Your task to perform on an android device: What's on my calendar tomorrow? Image 0: 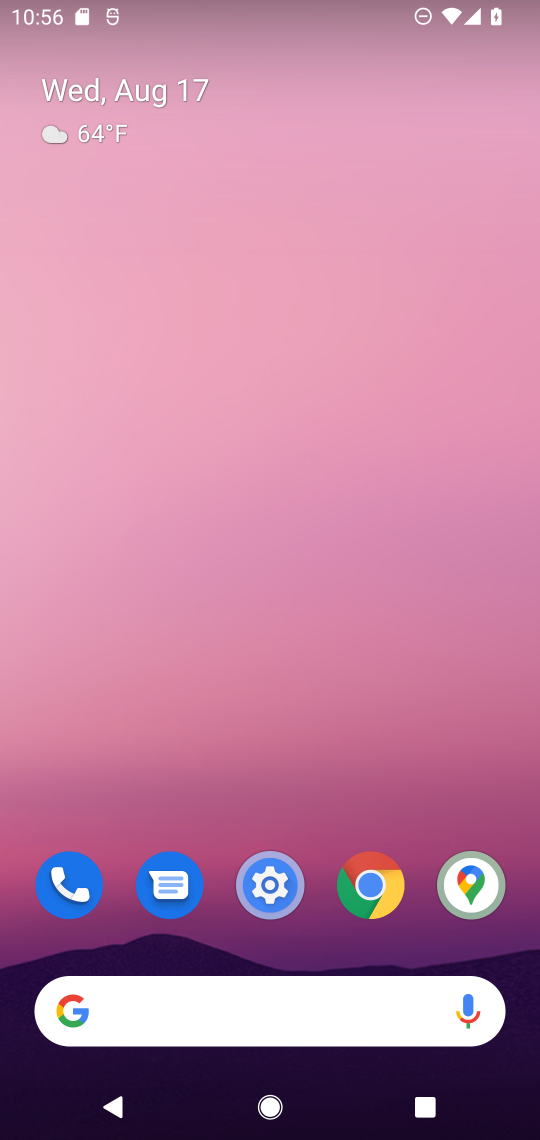
Step 0: drag from (423, 952) to (381, 145)
Your task to perform on an android device: What's on my calendar tomorrow? Image 1: 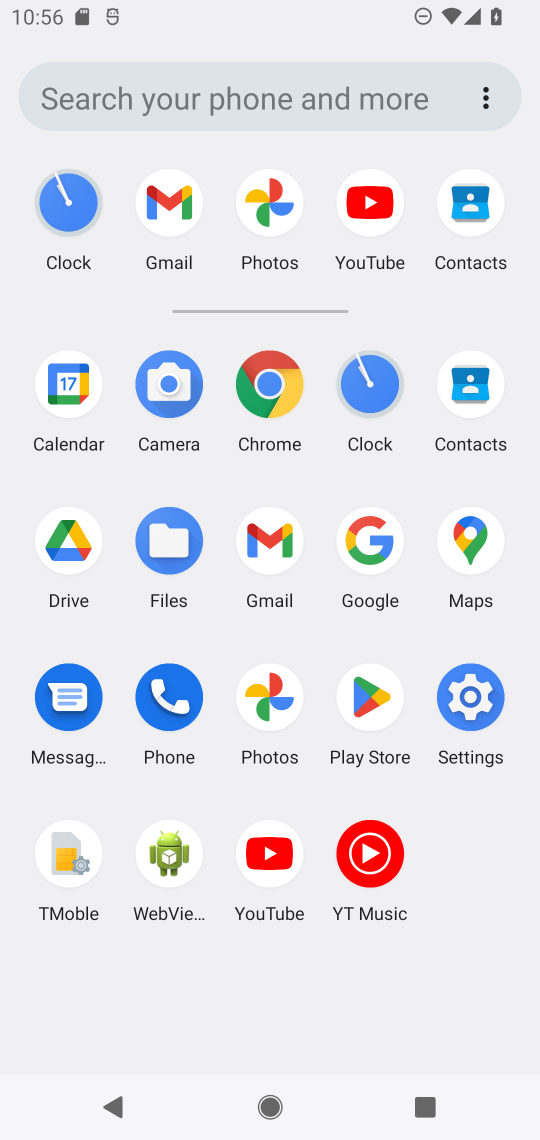
Step 1: click (64, 379)
Your task to perform on an android device: What's on my calendar tomorrow? Image 2: 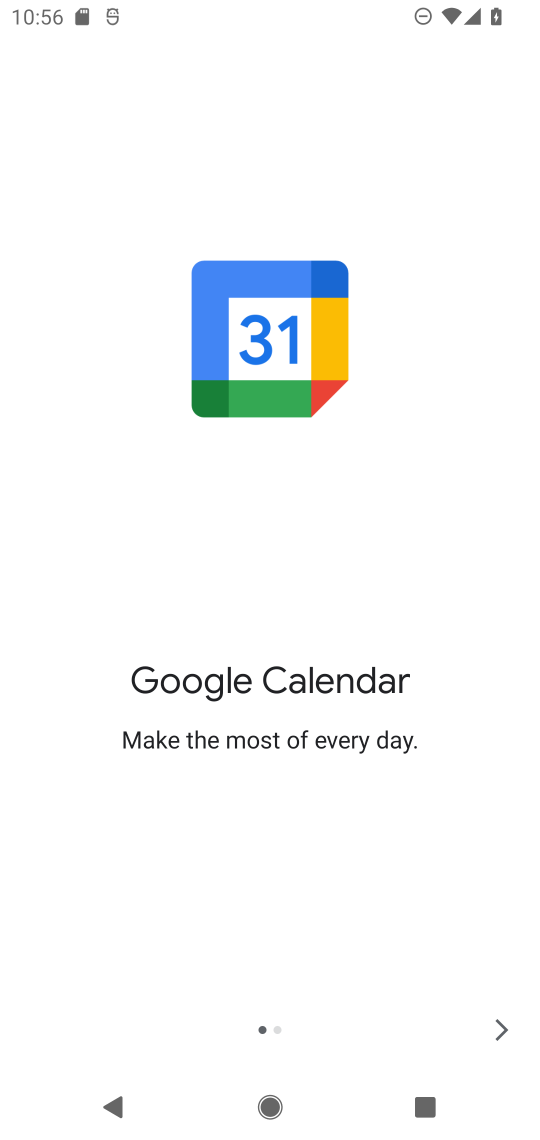
Step 2: click (498, 1030)
Your task to perform on an android device: What's on my calendar tomorrow? Image 3: 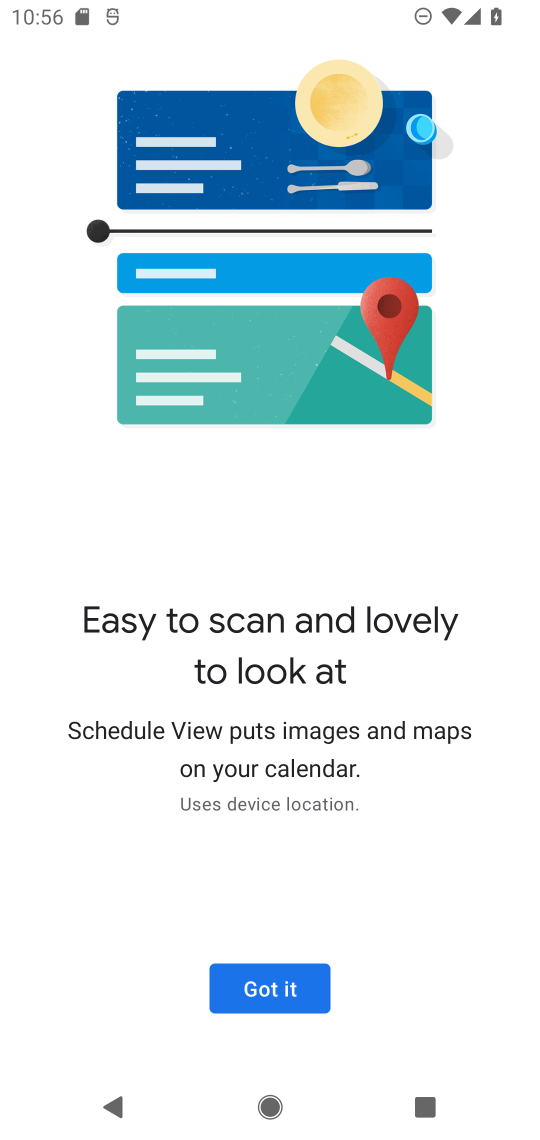
Step 3: click (261, 979)
Your task to perform on an android device: What's on my calendar tomorrow? Image 4: 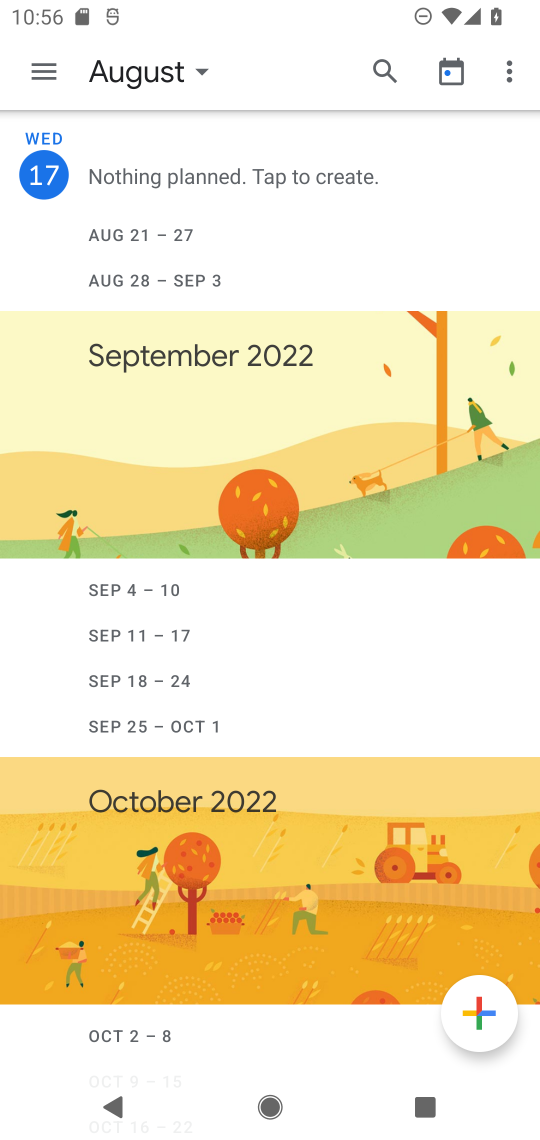
Step 4: click (35, 79)
Your task to perform on an android device: What's on my calendar tomorrow? Image 5: 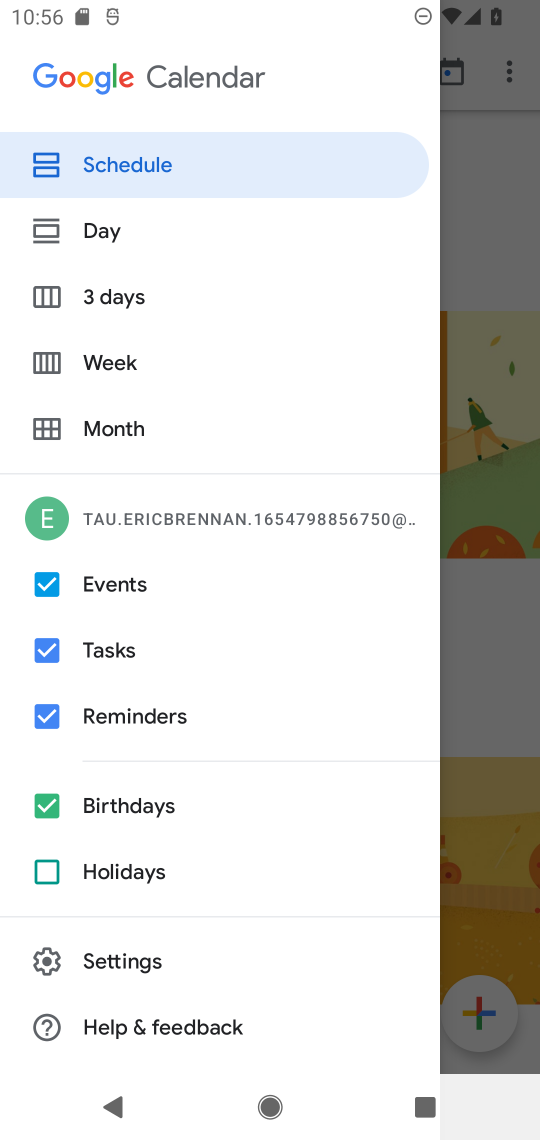
Step 5: click (107, 241)
Your task to perform on an android device: What's on my calendar tomorrow? Image 6: 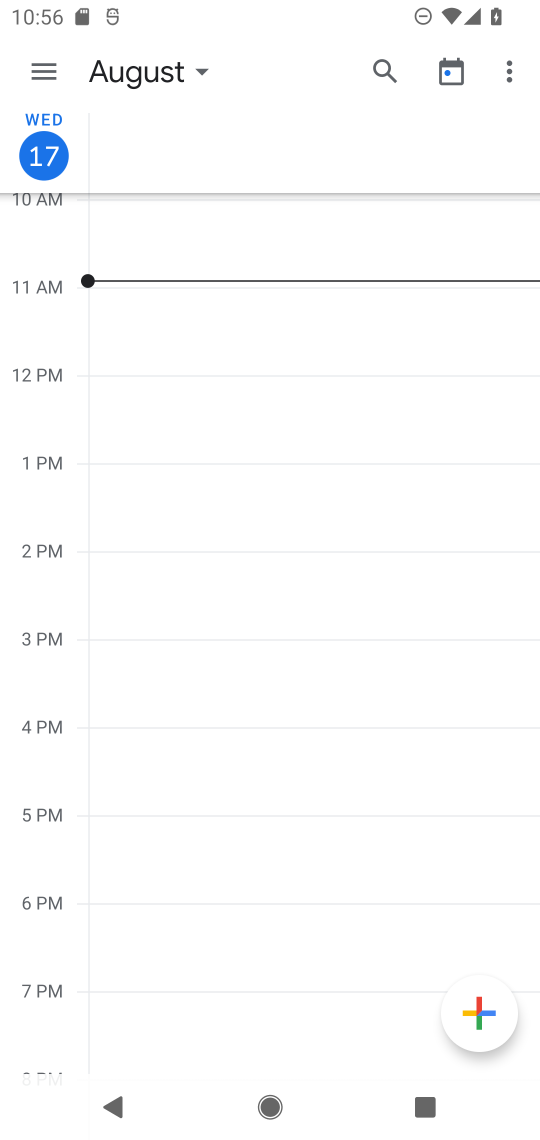
Step 6: click (198, 72)
Your task to perform on an android device: What's on my calendar tomorrow? Image 7: 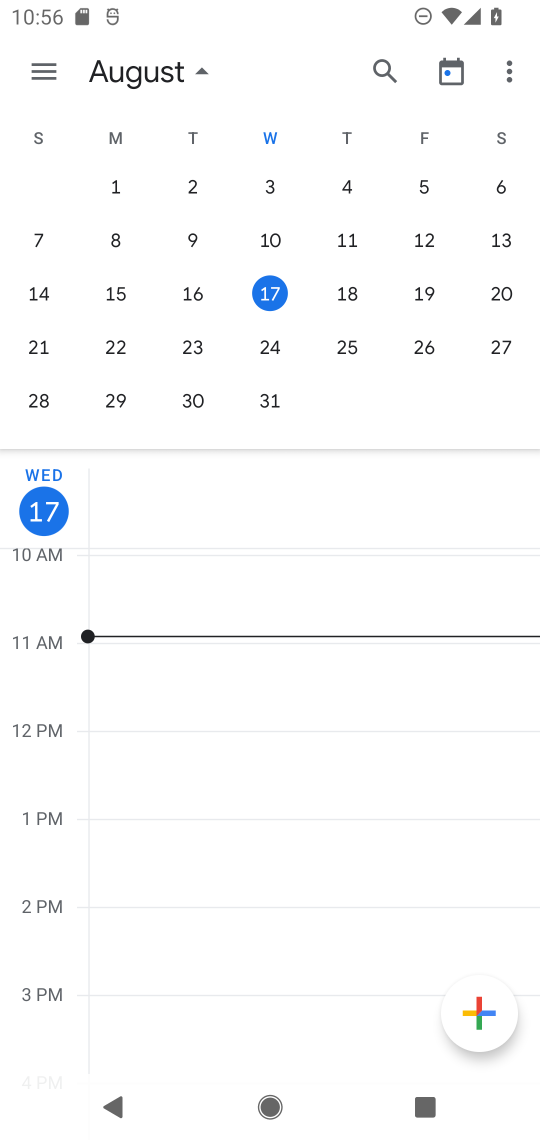
Step 7: click (342, 292)
Your task to perform on an android device: What's on my calendar tomorrow? Image 8: 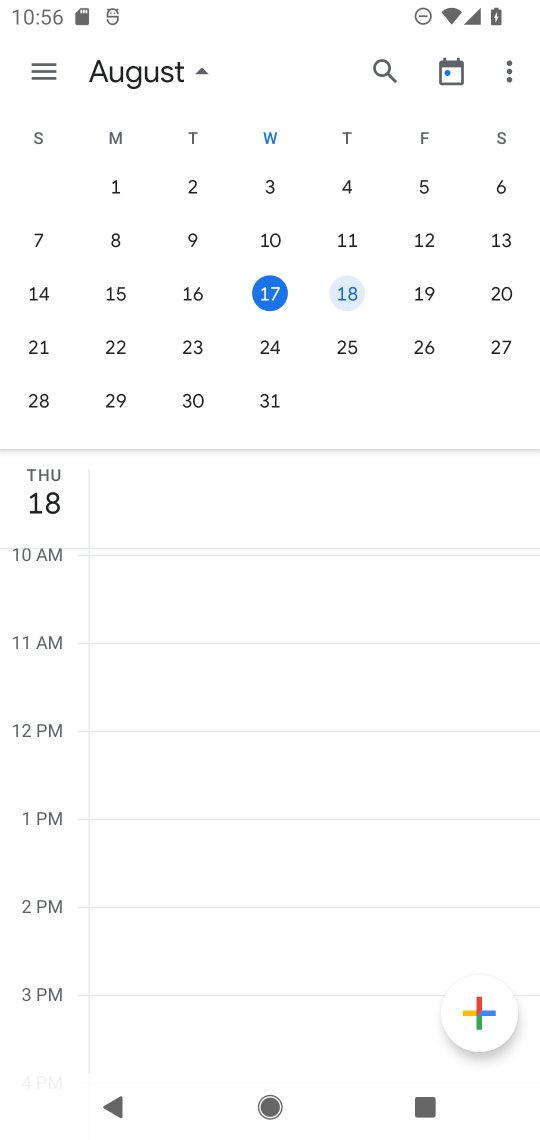
Step 8: task complete